Your task to perform on an android device: toggle javascript in the chrome app Image 0: 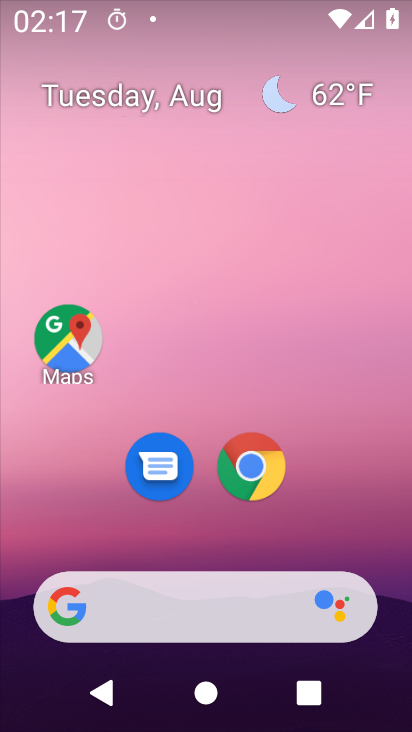
Step 0: press home button
Your task to perform on an android device: toggle javascript in the chrome app Image 1: 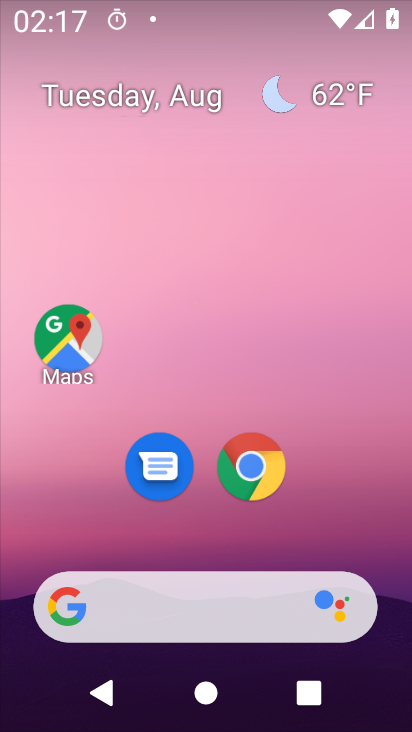
Step 1: drag from (389, 571) to (397, 136)
Your task to perform on an android device: toggle javascript in the chrome app Image 2: 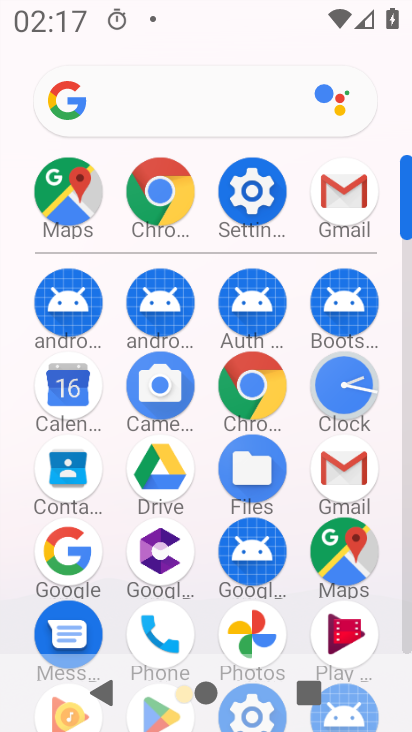
Step 2: click (254, 387)
Your task to perform on an android device: toggle javascript in the chrome app Image 3: 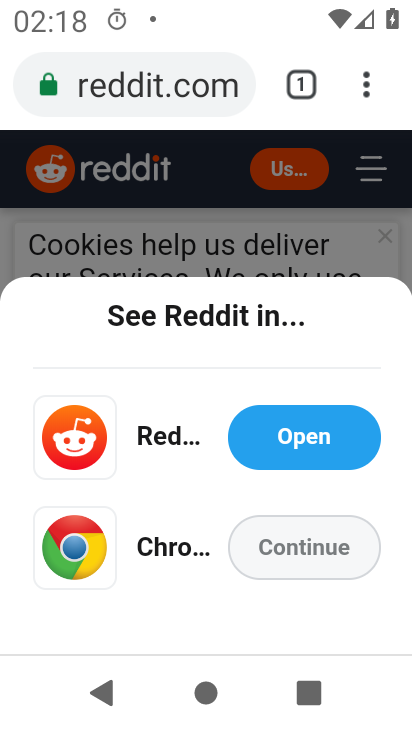
Step 3: click (364, 87)
Your task to perform on an android device: toggle javascript in the chrome app Image 4: 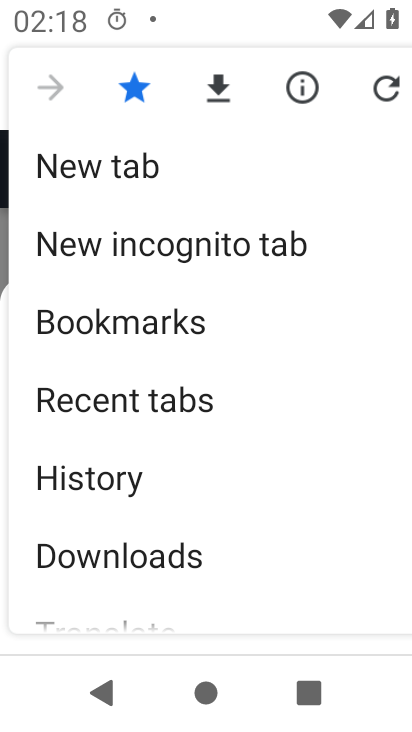
Step 4: drag from (340, 563) to (377, 369)
Your task to perform on an android device: toggle javascript in the chrome app Image 5: 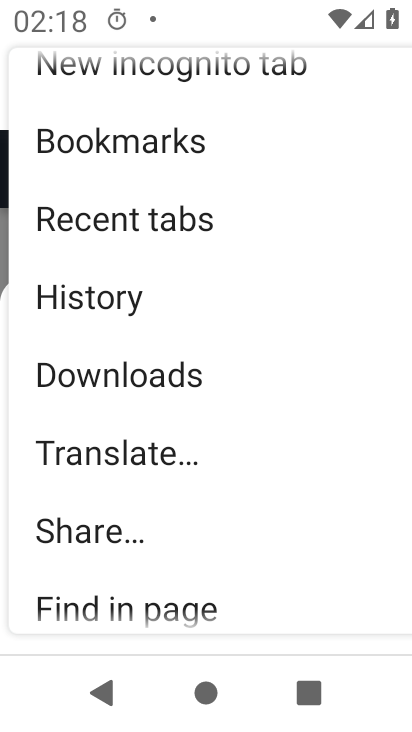
Step 5: drag from (302, 555) to (327, 393)
Your task to perform on an android device: toggle javascript in the chrome app Image 6: 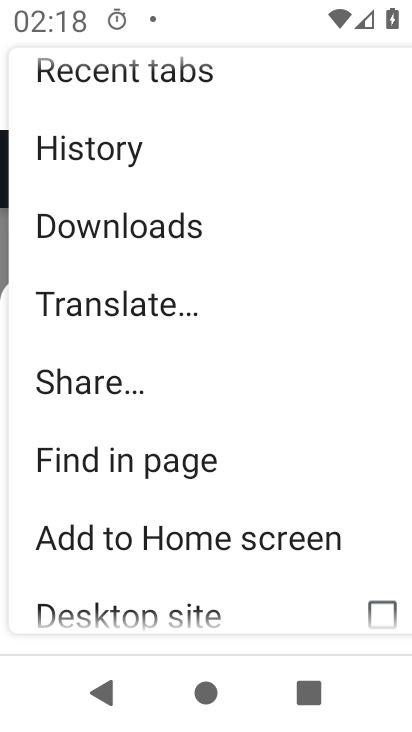
Step 6: drag from (283, 586) to (308, 415)
Your task to perform on an android device: toggle javascript in the chrome app Image 7: 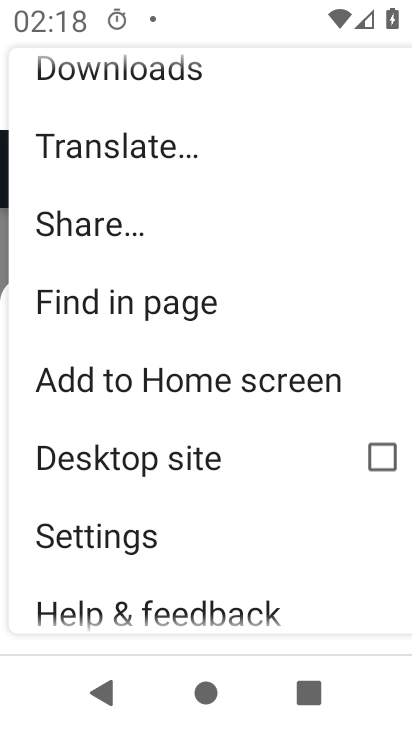
Step 7: click (242, 537)
Your task to perform on an android device: toggle javascript in the chrome app Image 8: 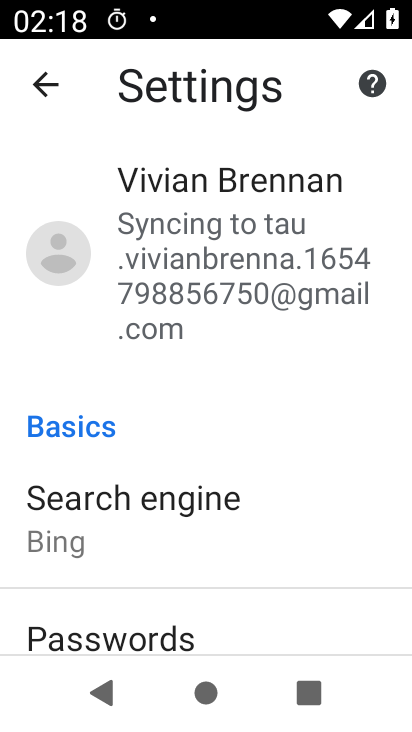
Step 8: drag from (295, 561) to (312, 460)
Your task to perform on an android device: toggle javascript in the chrome app Image 9: 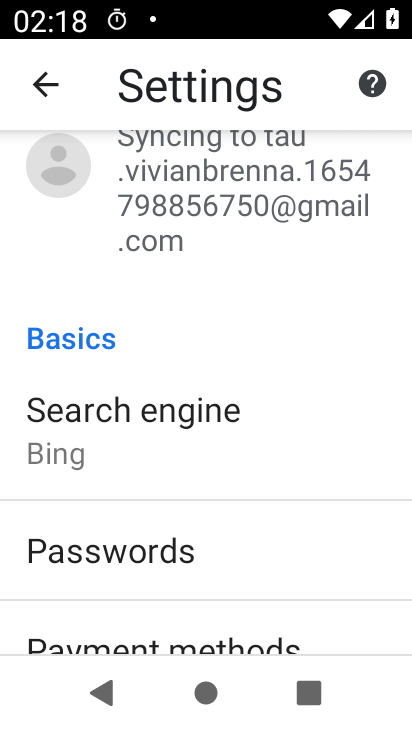
Step 9: drag from (311, 577) to (338, 481)
Your task to perform on an android device: toggle javascript in the chrome app Image 10: 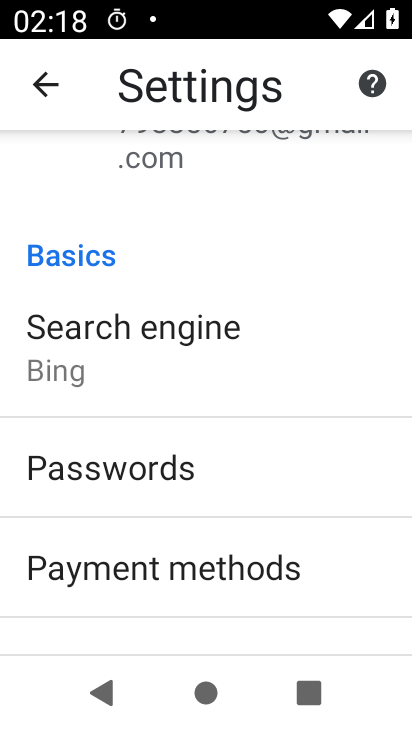
Step 10: drag from (346, 603) to (368, 458)
Your task to perform on an android device: toggle javascript in the chrome app Image 11: 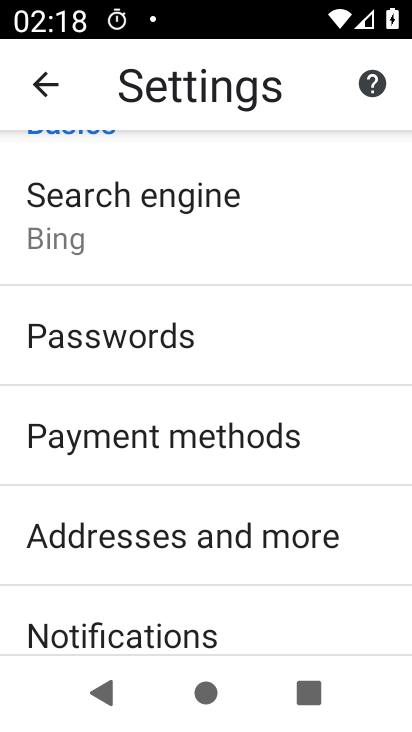
Step 11: drag from (340, 593) to (351, 463)
Your task to perform on an android device: toggle javascript in the chrome app Image 12: 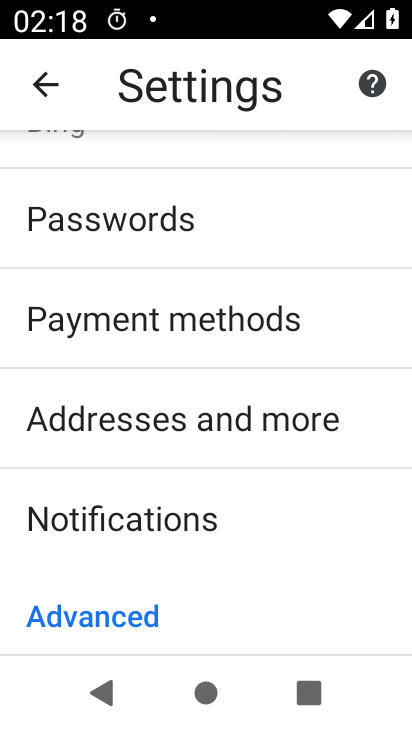
Step 12: drag from (332, 553) to (338, 450)
Your task to perform on an android device: toggle javascript in the chrome app Image 13: 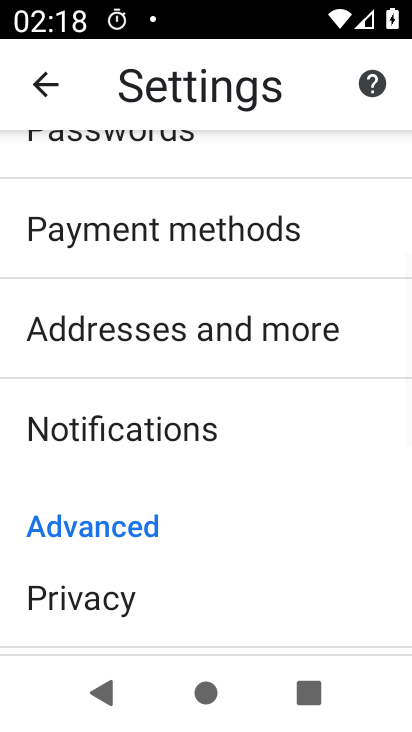
Step 13: drag from (302, 525) to (314, 406)
Your task to perform on an android device: toggle javascript in the chrome app Image 14: 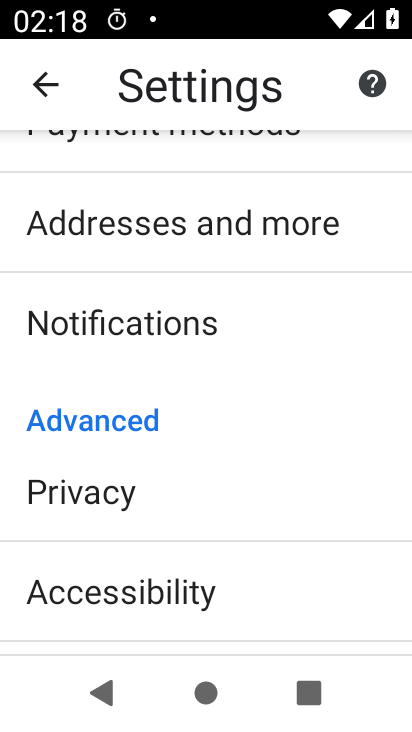
Step 14: drag from (297, 575) to (309, 439)
Your task to perform on an android device: toggle javascript in the chrome app Image 15: 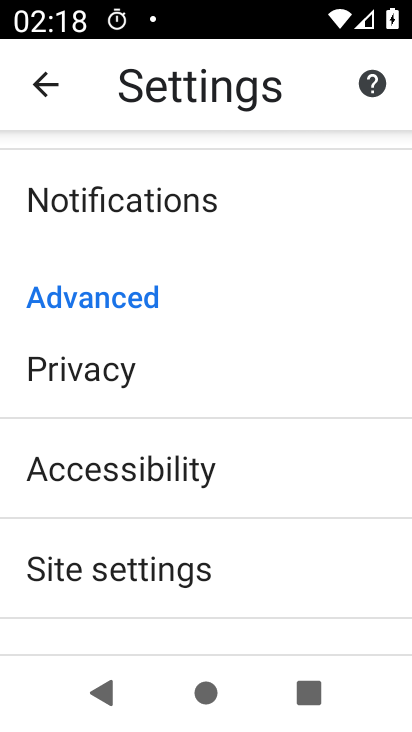
Step 15: drag from (298, 574) to (308, 428)
Your task to perform on an android device: toggle javascript in the chrome app Image 16: 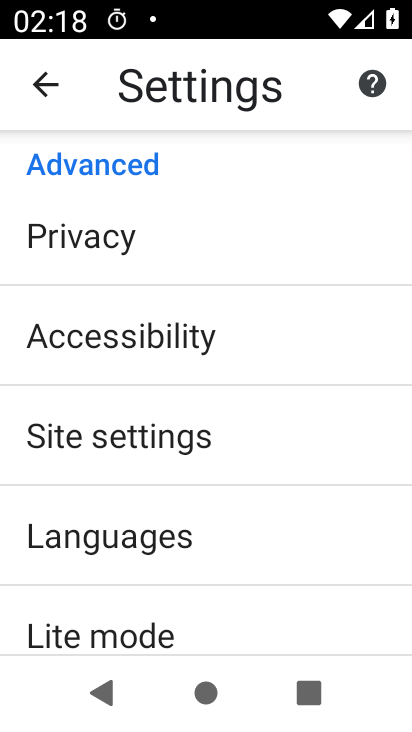
Step 16: click (237, 443)
Your task to perform on an android device: toggle javascript in the chrome app Image 17: 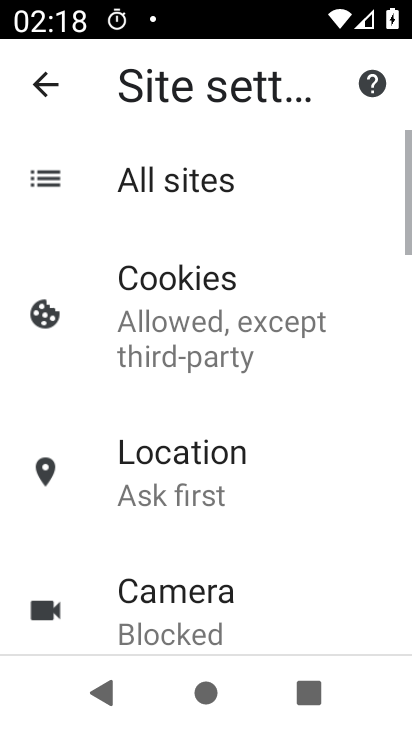
Step 17: drag from (319, 559) to (319, 431)
Your task to perform on an android device: toggle javascript in the chrome app Image 18: 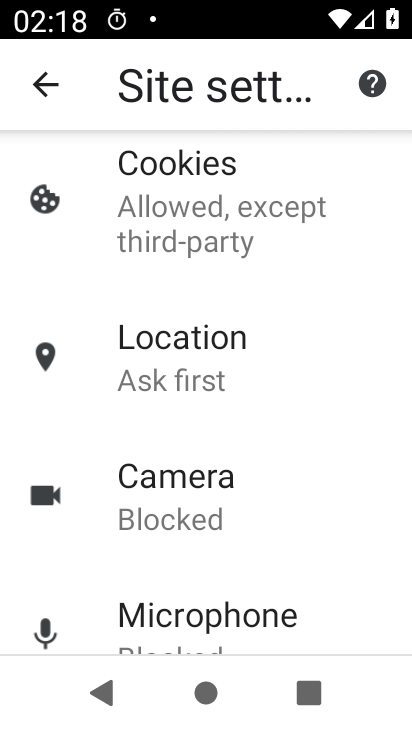
Step 18: drag from (299, 569) to (319, 419)
Your task to perform on an android device: toggle javascript in the chrome app Image 19: 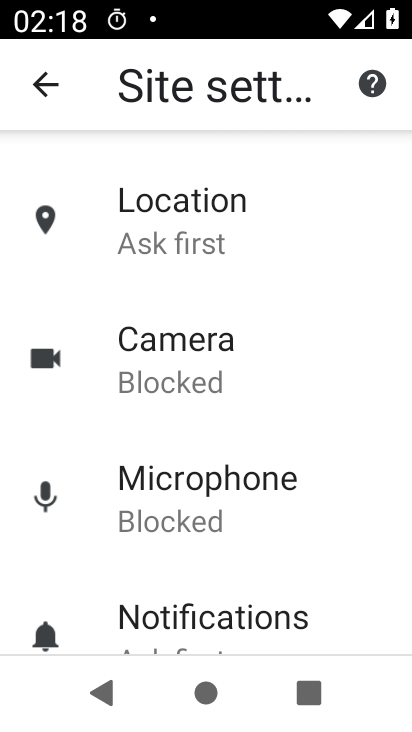
Step 19: drag from (340, 576) to (338, 424)
Your task to perform on an android device: toggle javascript in the chrome app Image 20: 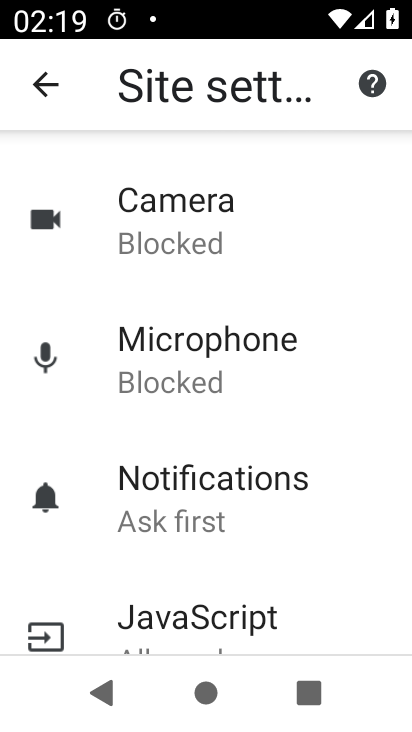
Step 20: drag from (319, 585) to (325, 432)
Your task to perform on an android device: toggle javascript in the chrome app Image 21: 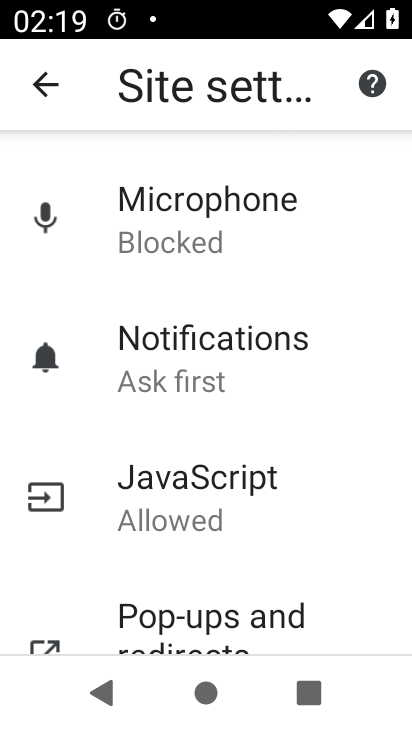
Step 21: drag from (303, 571) to (322, 435)
Your task to perform on an android device: toggle javascript in the chrome app Image 22: 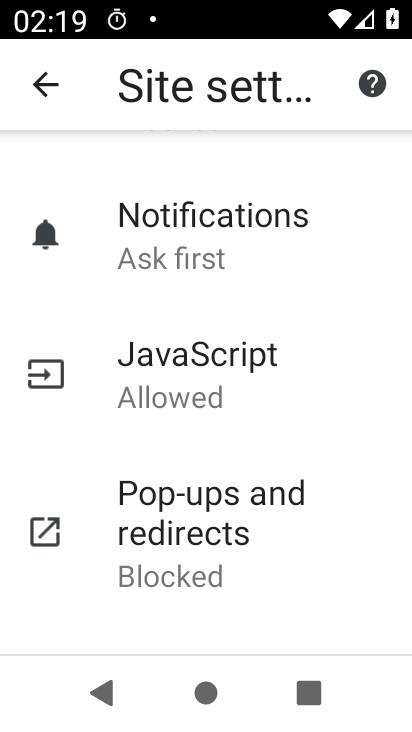
Step 22: click (255, 394)
Your task to perform on an android device: toggle javascript in the chrome app Image 23: 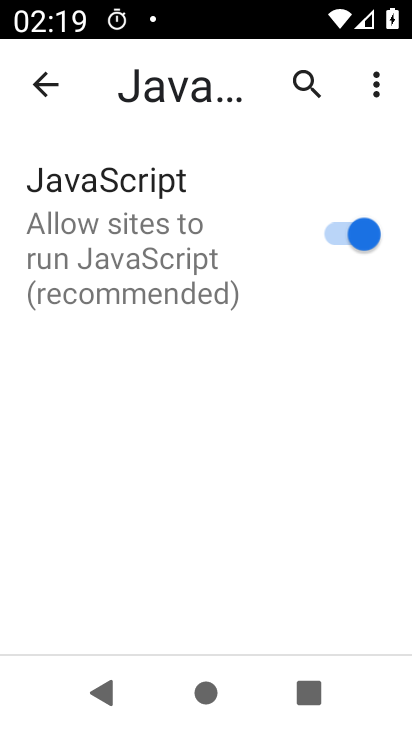
Step 23: click (360, 245)
Your task to perform on an android device: toggle javascript in the chrome app Image 24: 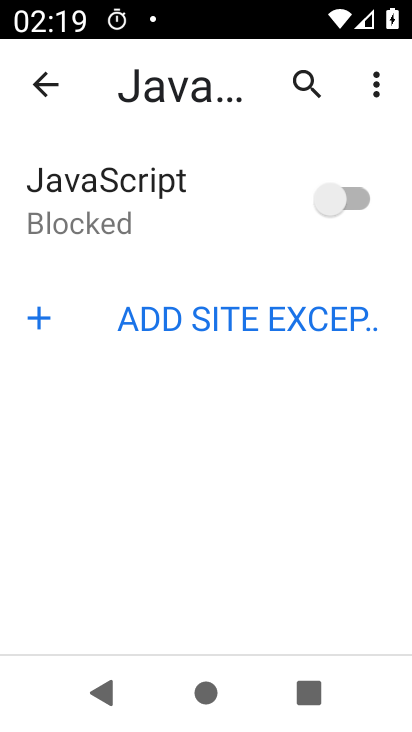
Step 24: task complete